Your task to perform on an android device: check android version Image 0: 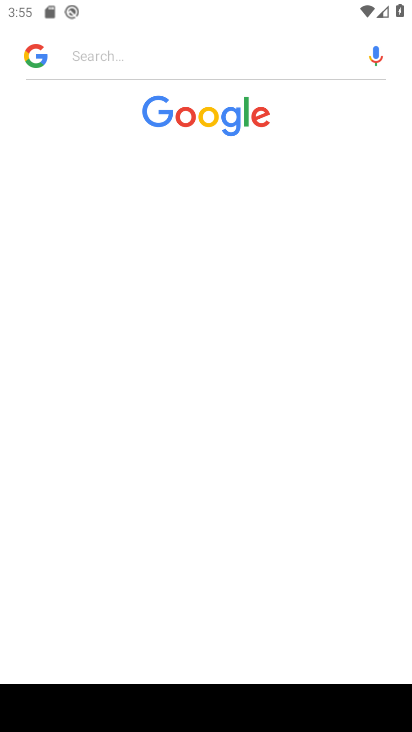
Step 0: press home button
Your task to perform on an android device: check android version Image 1: 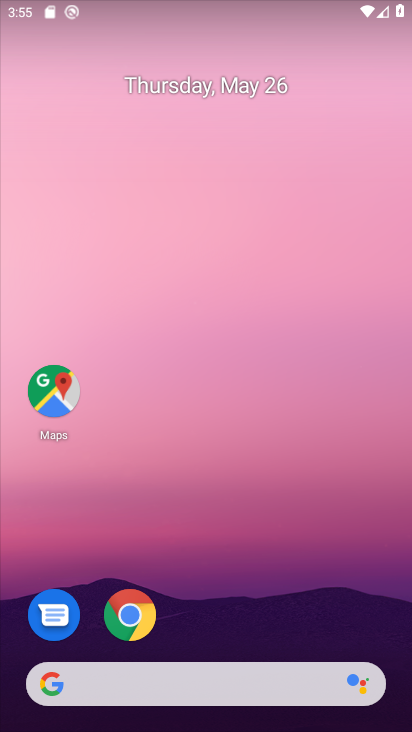
Step 1: drag from (175, 641) to (290, 132)
Your task to perform on an android device: check android version Image 2: 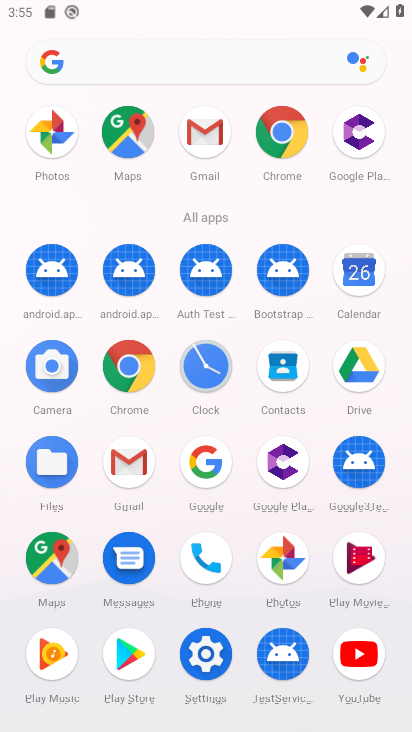
Step 2: click (205, 659)
Your task to perform on an android device: check android version Image 3: 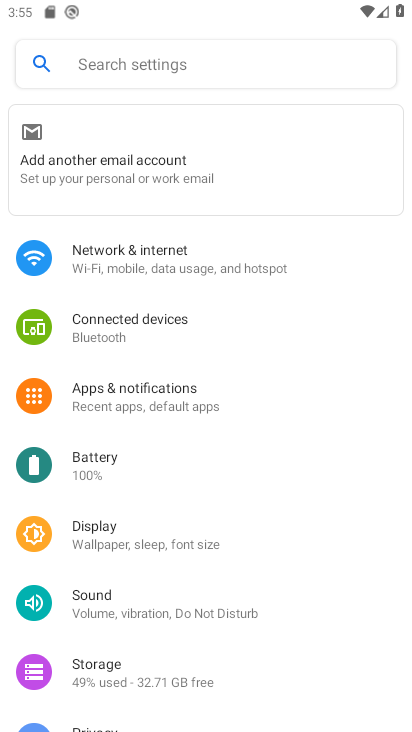
Step 3: drag from (129, 688) to (289, 213)
Your task to perform on an android device: check android version Image 4: 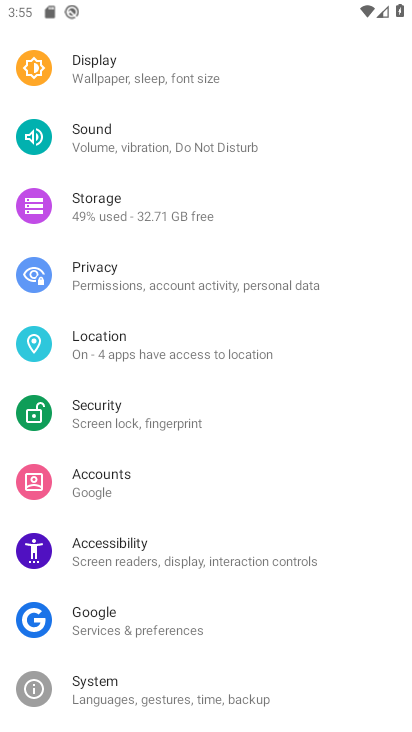
Step 4: drag from (195, 657) to (289, 290)
Your task to perform on an android device: check android version Image 5: 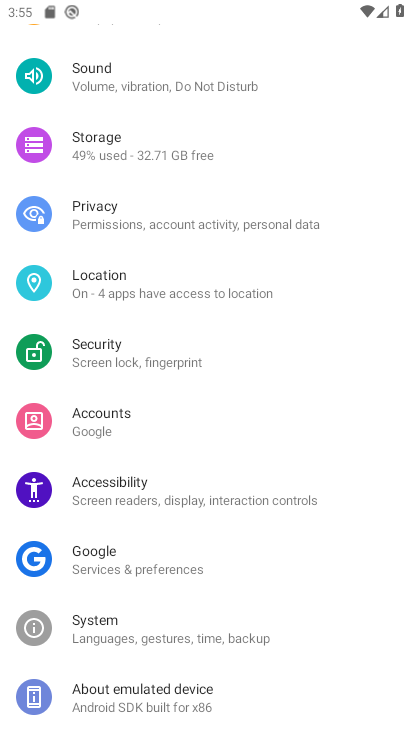
Step 5: click (206, 718)
Your task to perform on an android device: check android version Image 6: 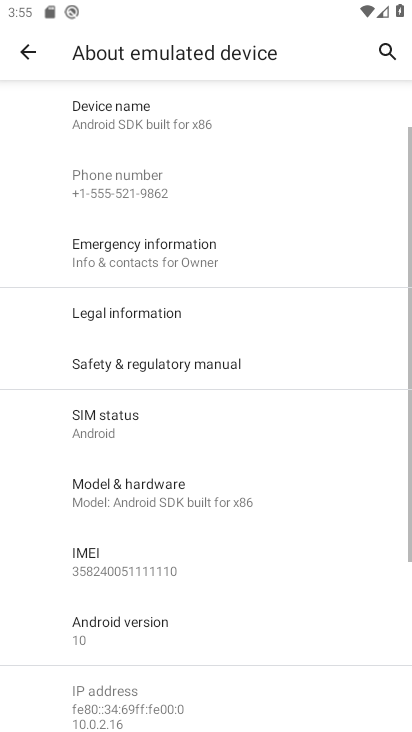
Step 6: click (152, 643)
Your task to perform on an android device: check android version Image 7: 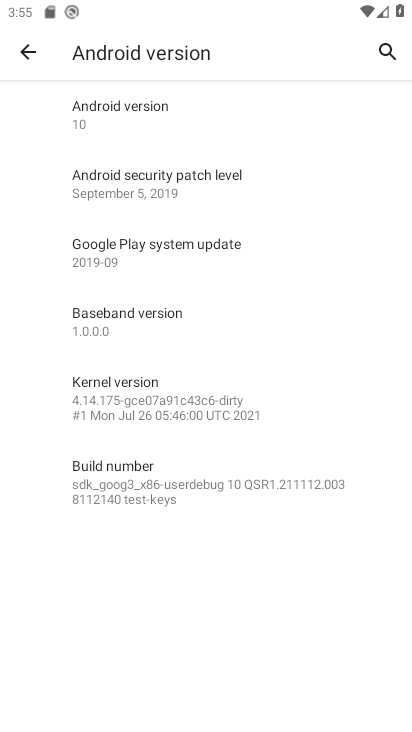
Step 7: task complete